Your task to perform on an android device: Open calendar and show me the second week of next month Image 0: 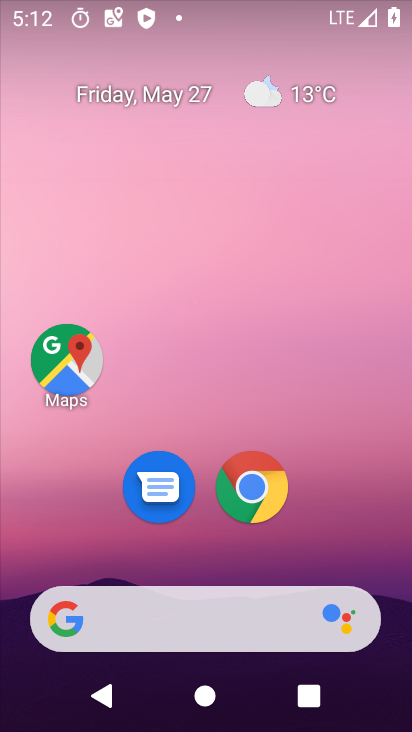
Step 0: drag from (353, 506) to (308, 101)
Your task to perform on an android device: Open calendar and show me the second week of next month Image 1: 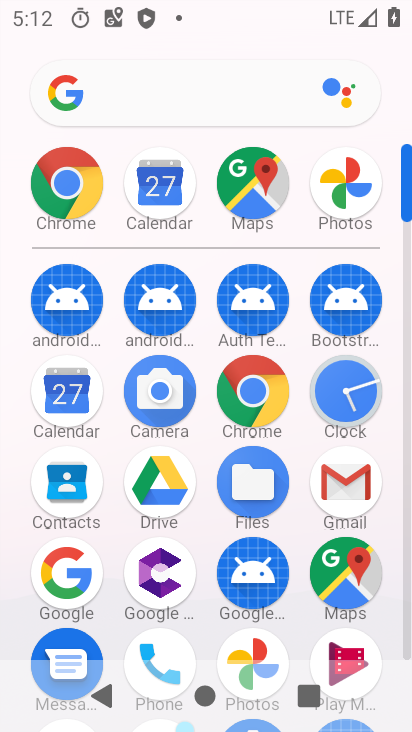
Step 1: click (85, 392)
Your task to perform on an android device: Open calendar and show me the second week of next month Image 2: 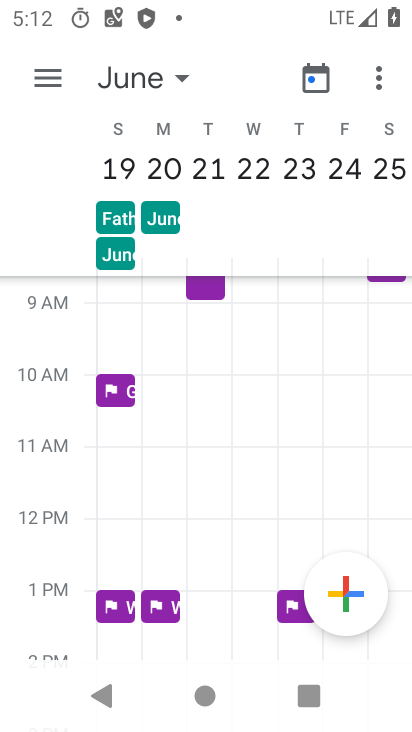
Step 2: task complete